Your task to perform on an android device: change keyboard looks Image 0: 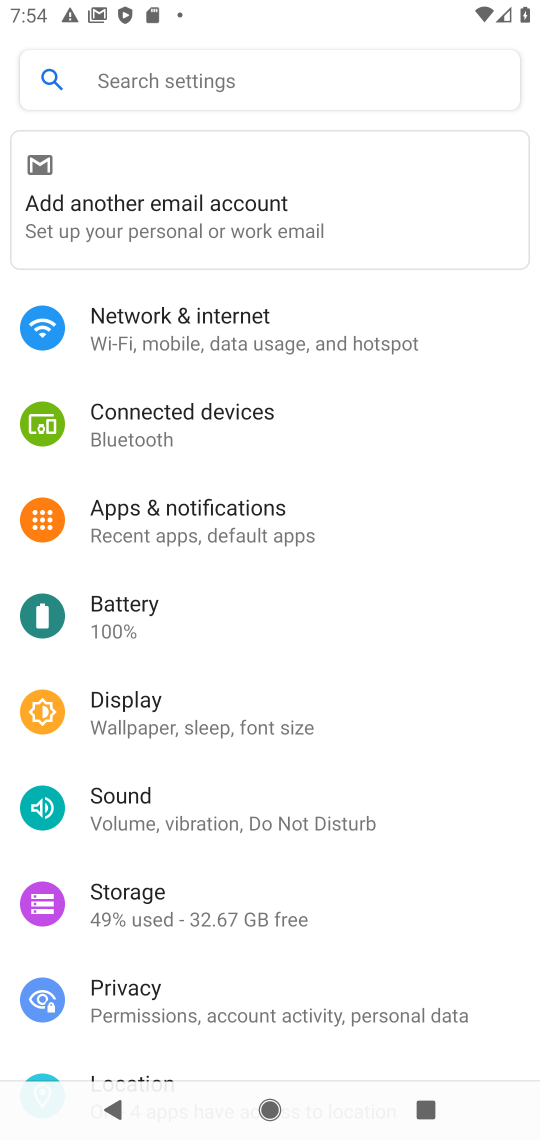
Step 0: drag from (325, 851) to (266, 19)
Your task to perform on an android device: change keyboard looks Image 1: 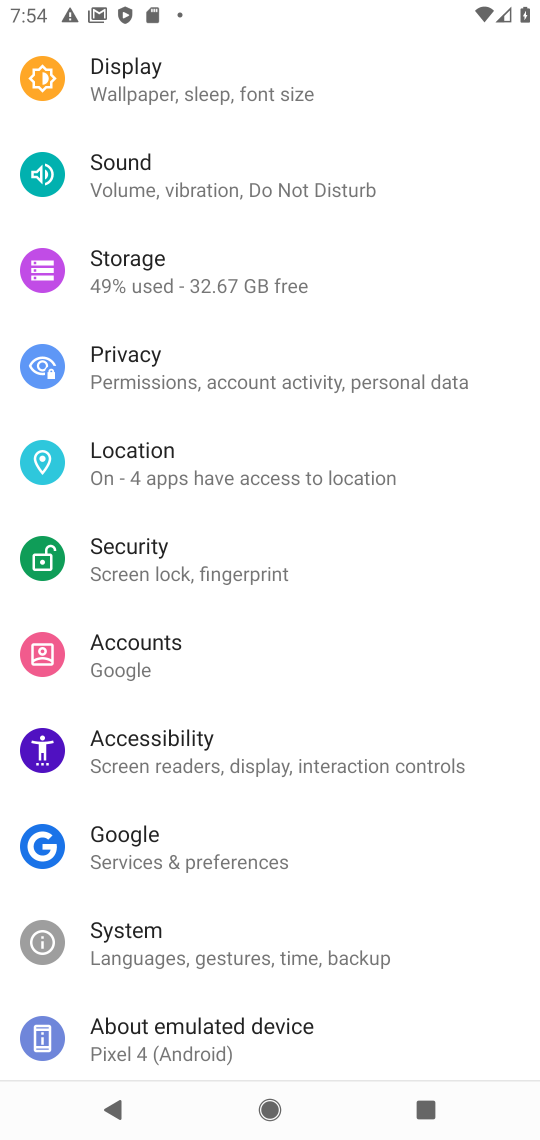
Step 1: click (206, 958)
Your task to perform on an android device: change keyboard looks Image 2: 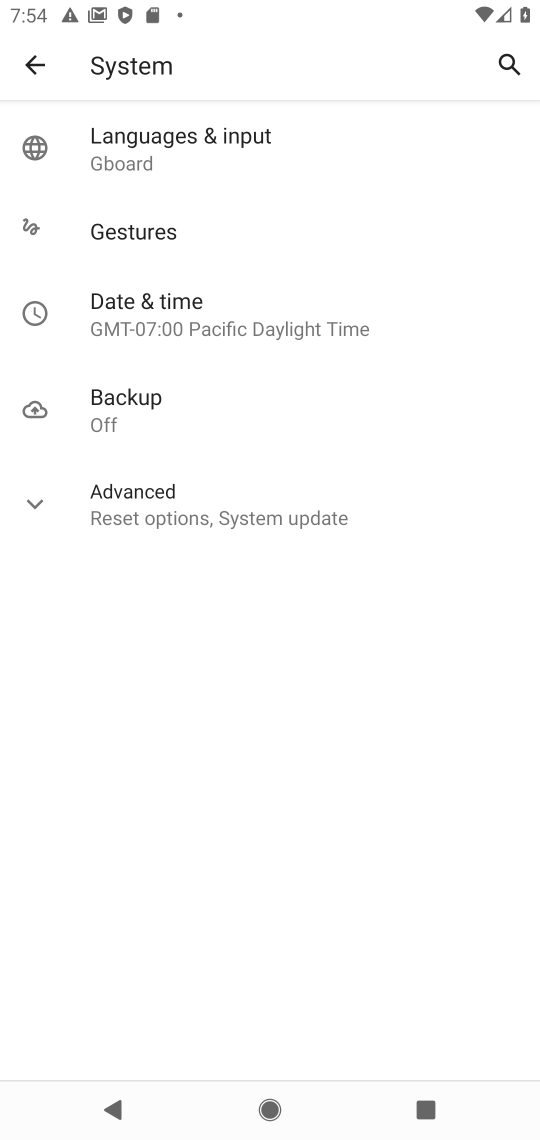
Step 2: click (177, 157)
Your task to perform on an android device: change keyboard looks Image 3: 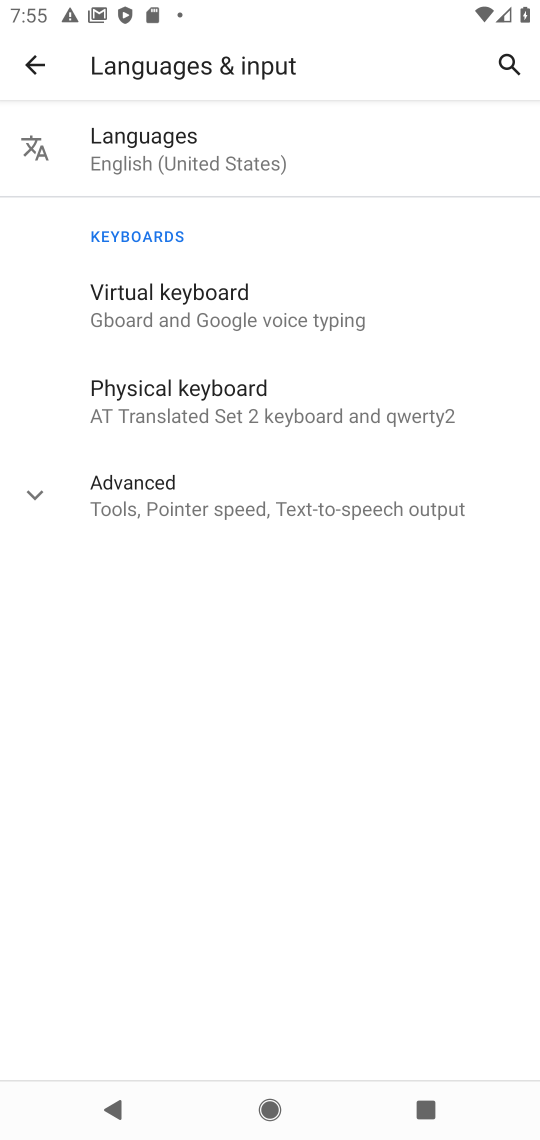
Step 3: click (201, 304)
Your task to perform on an android device: change keyboard looks Image 4: 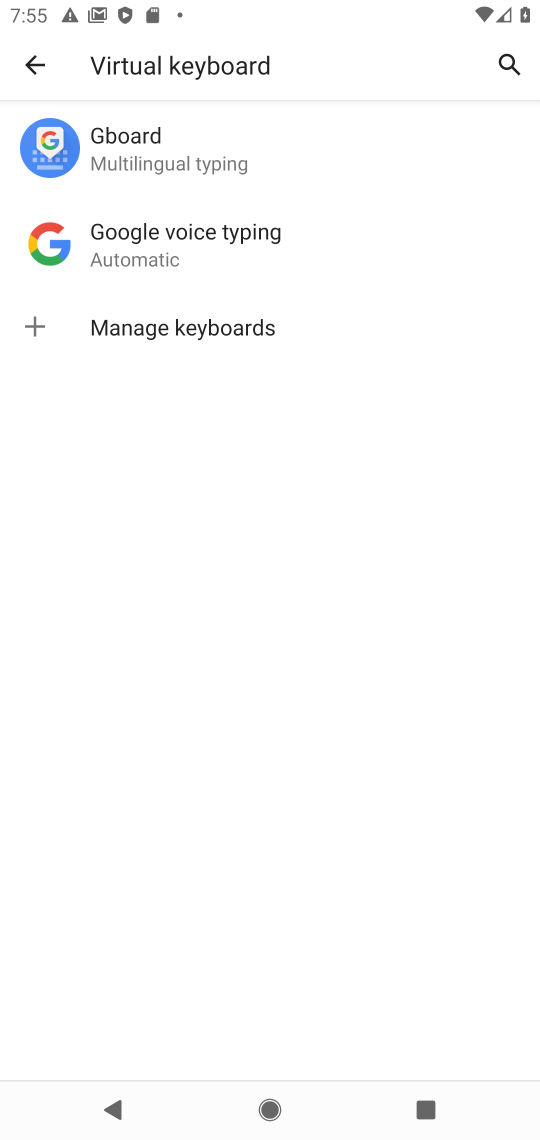
Step 4: click (193, 146)
Your task to perform on an android device: change keyboard looks Image 5: 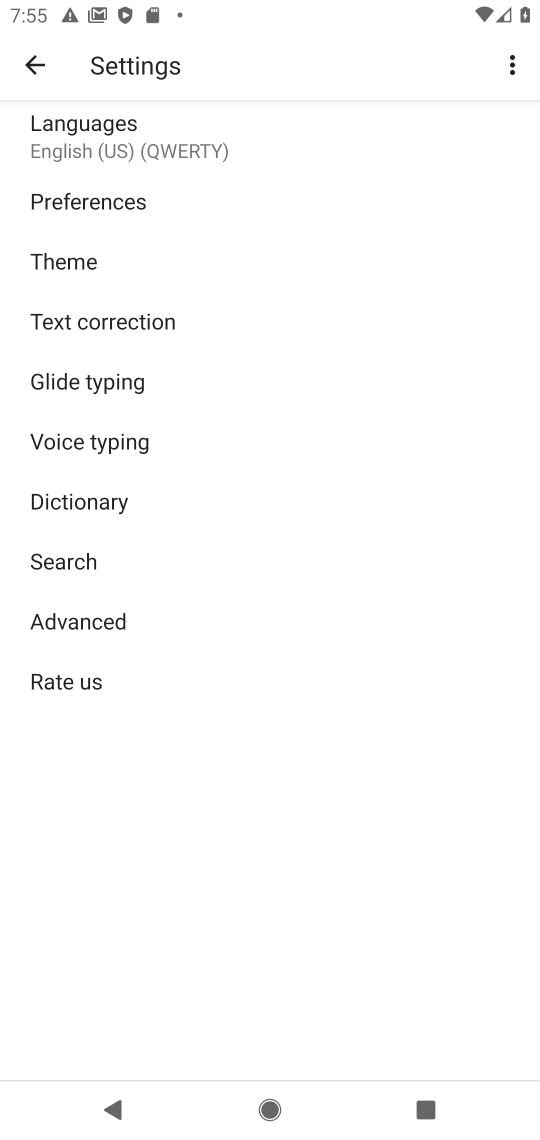
Step 5: click (102, 261)
Your task to perform on an android device: change keyboard looks Image 6: 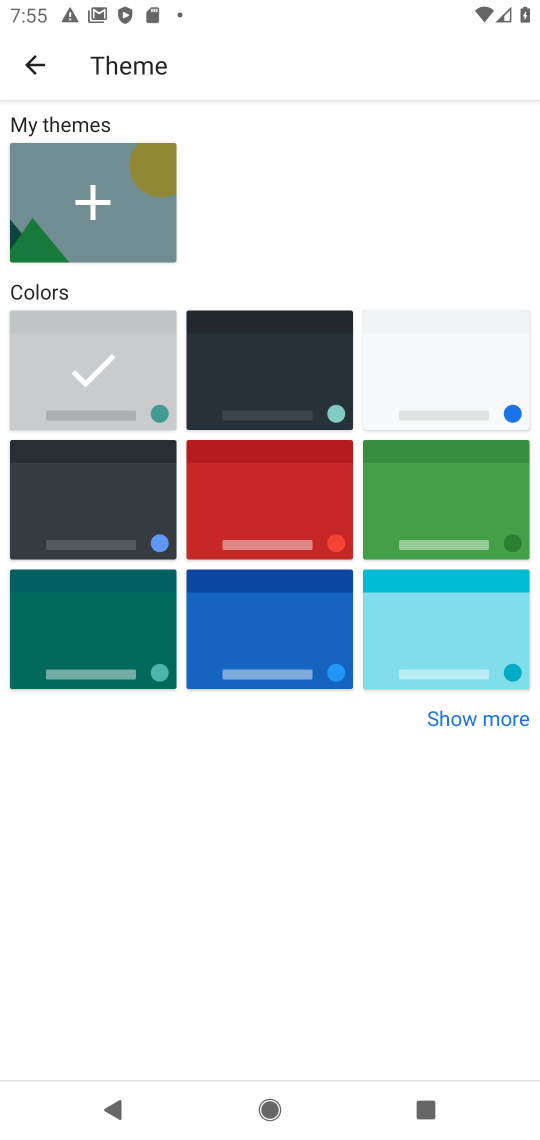
Step 6: click (286, 358)
Your task to perform on an android device: change keyboard looks Image 7: 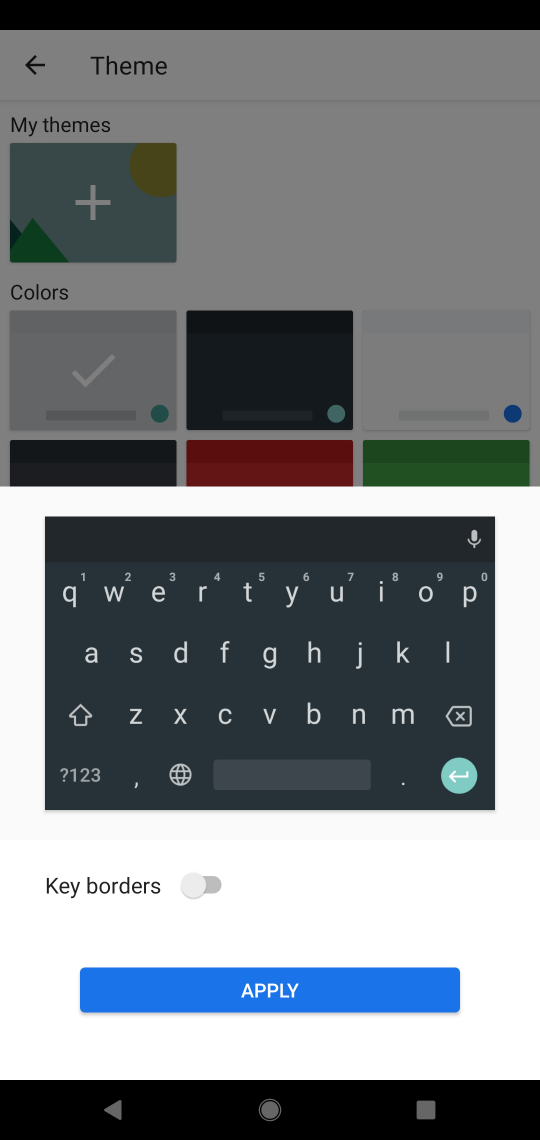
Step 7: click (312, 989)
Your task to perform on an android device: change keyboard looks Image 8: 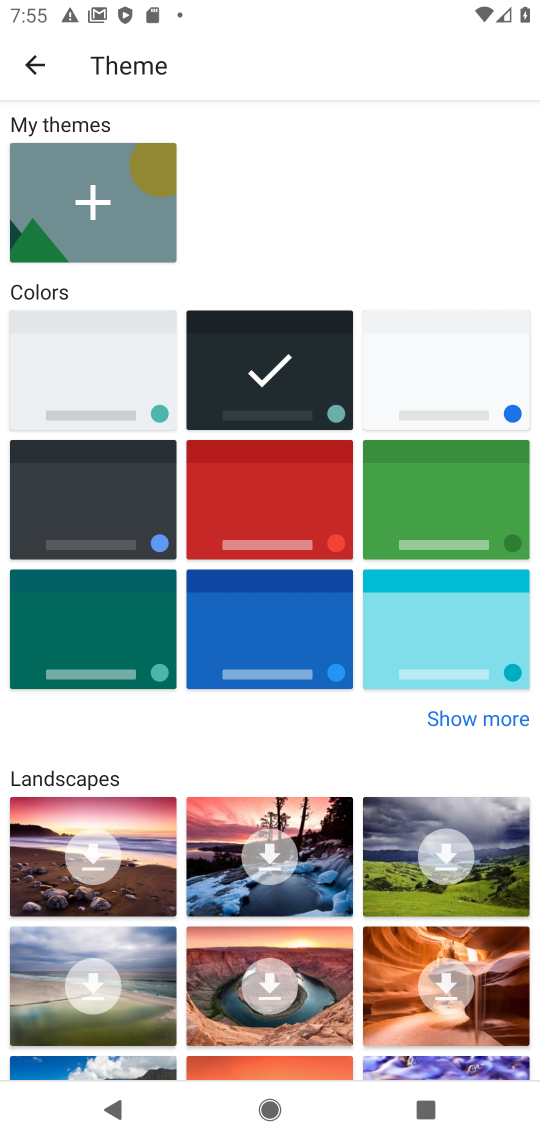
Step 8: task complete